Your task to perform on an android device: Open Google Chrome and open the bookmarks view Image 0: 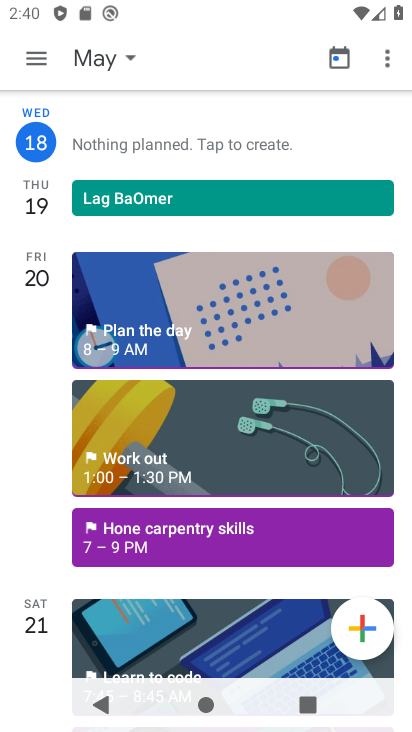
Step 0: press home button
Your task to perform on an android device: Open Google Chrome and open the bookmarks view Image 1: 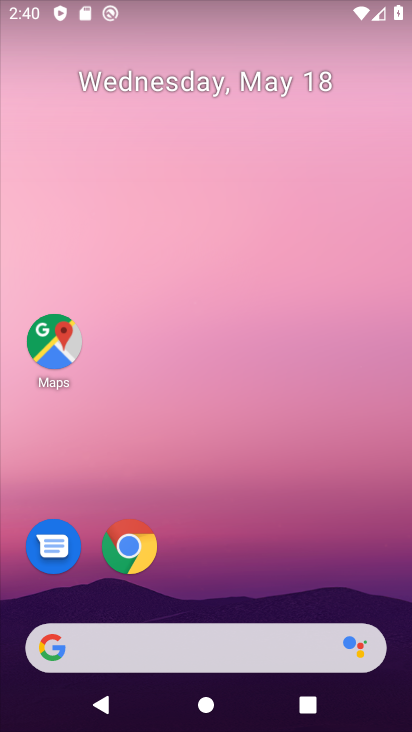
Step 1: click (117, 572)
Your task to perform on an android device: Open Google Chrome and open the bookmarks view Image 2: 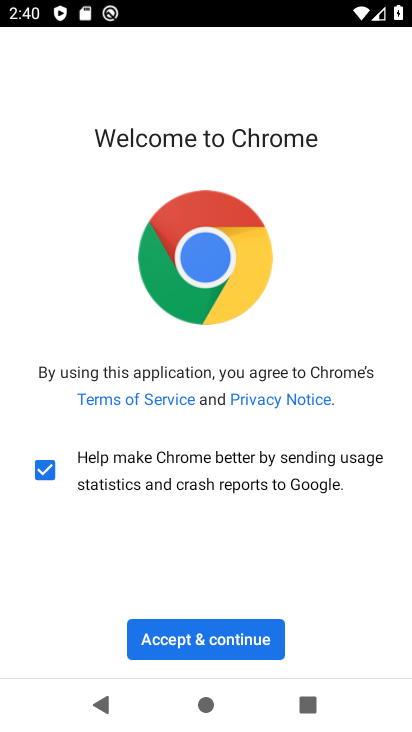
Step 2: click (239, 649)
Your task to perform on an android device: Open Google Chrome and open the bookmarks view Image 3: 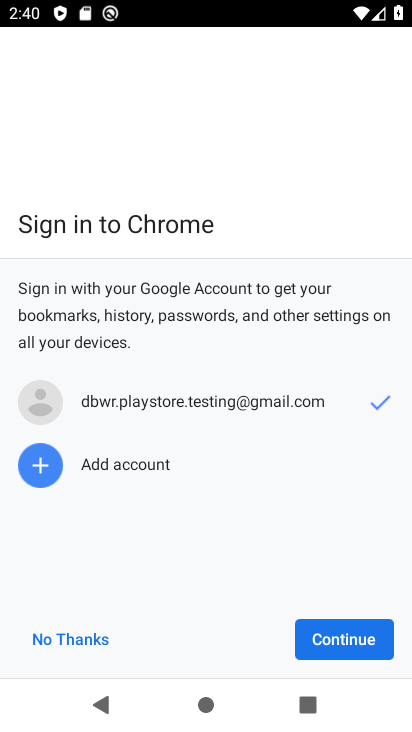
Step 3: click (316, 638)
Your task to perform on an android device: Open Google Chrome and open the bookmarks view Image 4: 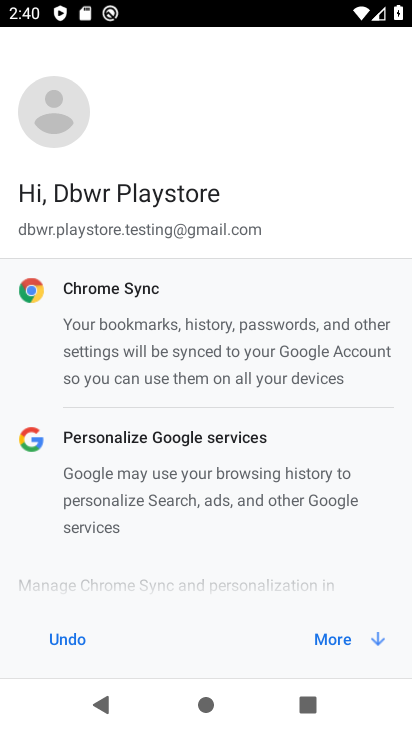
Step 4: click (316, 642)
Your task to perform on an android device: Open Google Chrome and open the bookmarks view Image 5: 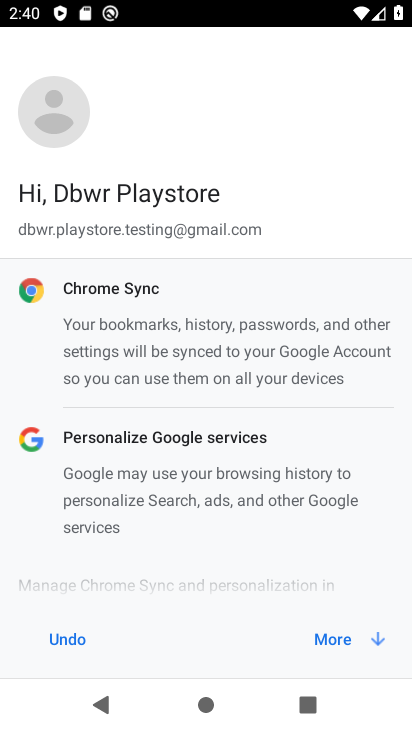
Step 5: click (314, 640)
Your task to perform on an android device: Open Google Chrome and open the bookmarks view Image 6: 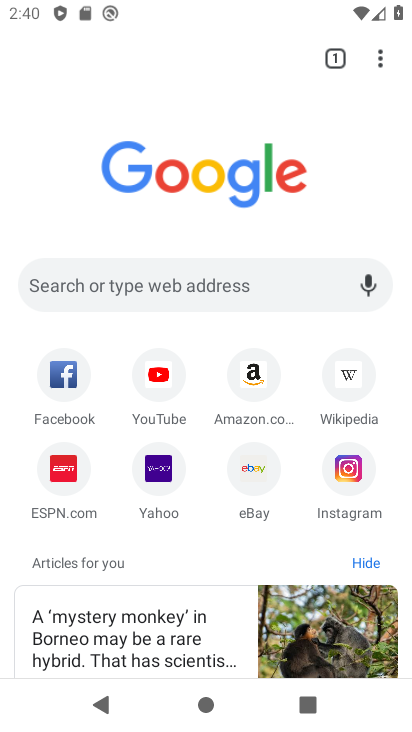
Step 6: task complete